Your task to perform on an android device: View the shopping cart on target.com. Image 0: 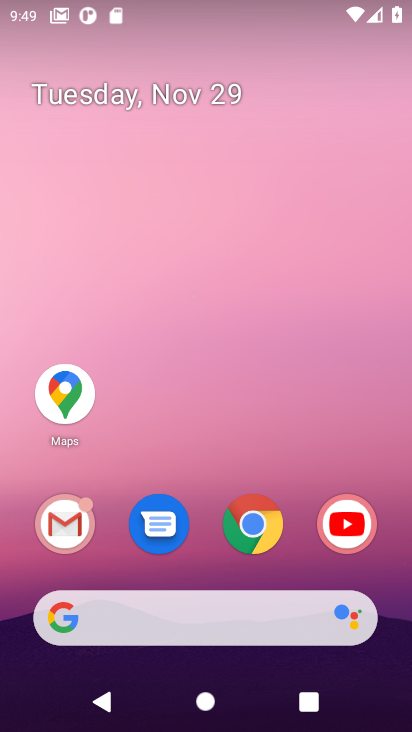
Step 0: click (250, 534)
Your task to perform on an android device: View the shopping cart on target.com. Image 1: 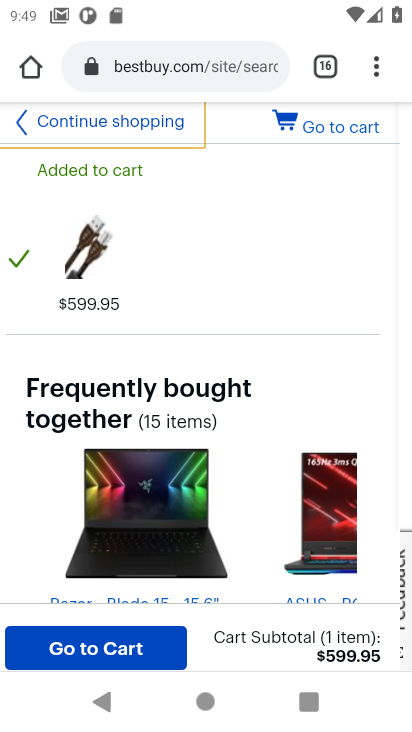
Step 1: click (167, 60)
Your task to perform on an android device: View the shopping cart on target.com. Image 2: 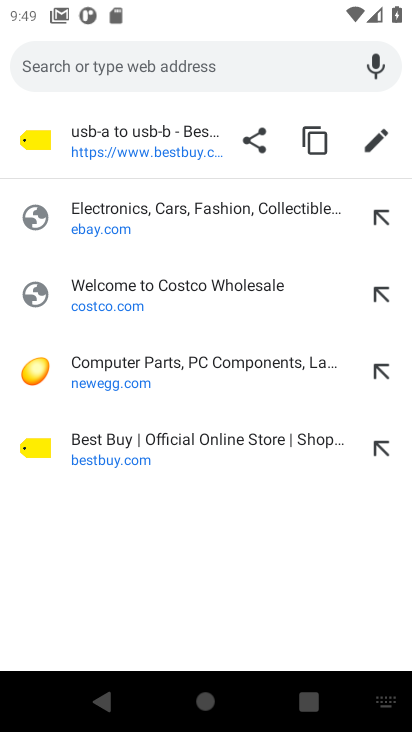
Step 2: type "target.com"
Your task to perform on an android device: View the shopping cart on target.com. Image 3: 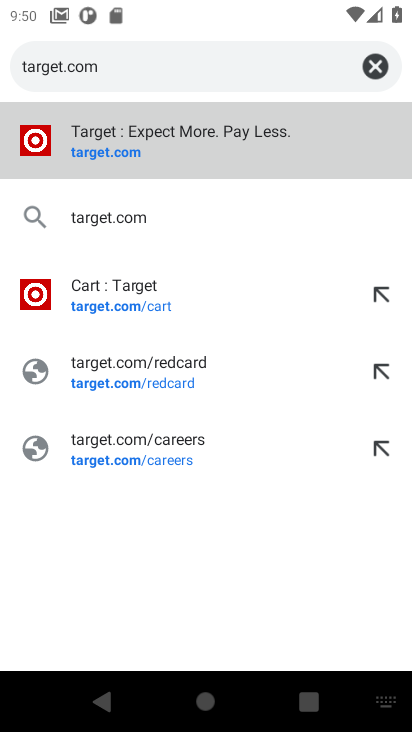
Step 3: click (112, 155)
Your task to perform on an android device: View the shopping cart on target.com. Image 4: 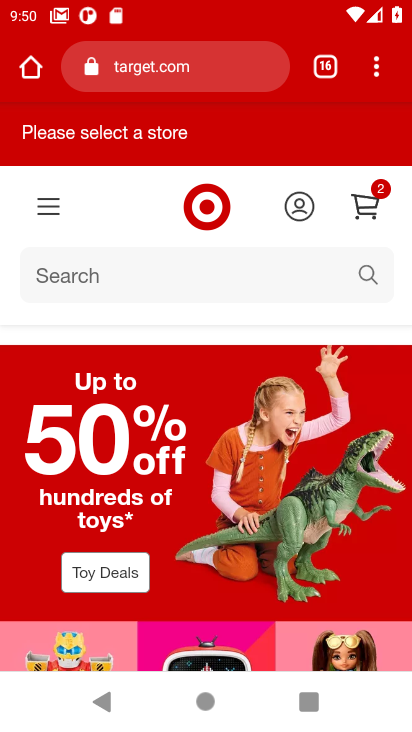
Step 4: click (366, 208)
Your task to perform on an android device: View the shopping cart on target.com. Image 5: 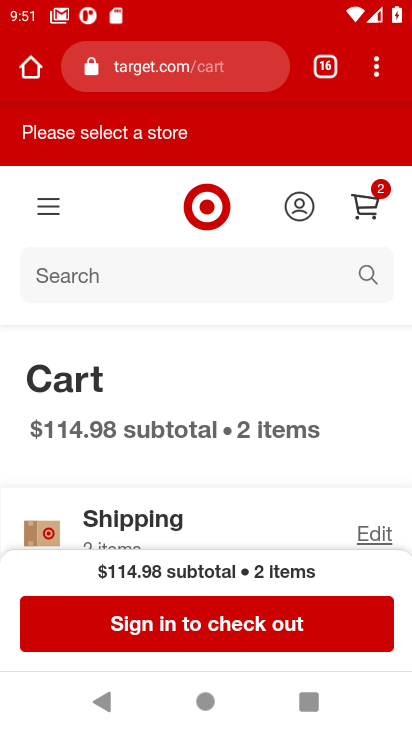
Step 5: task complete